Your task to perform on an android device: Open the calendar and show me this week's events? Image 0: 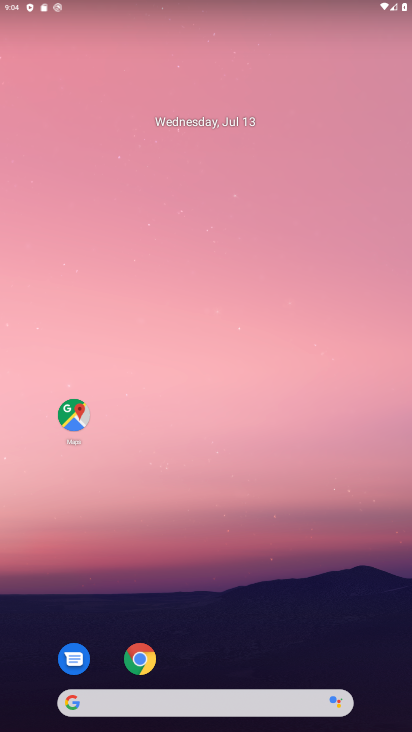
Step 0: drag from (393, 655) to (233, 0)
Your task to perform on an android device: Open the calendar and show me this week's events? Image 1: 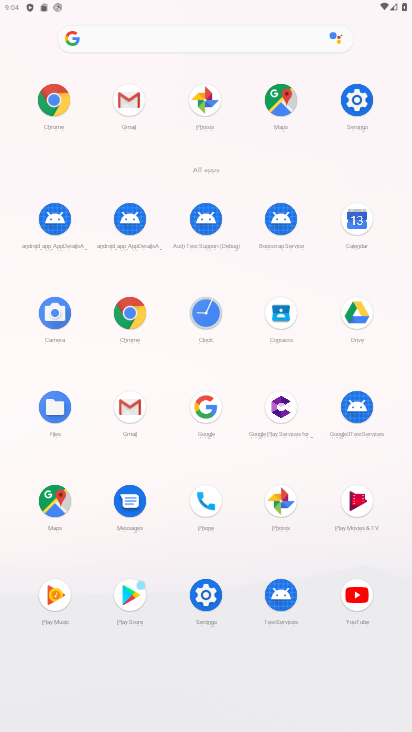
Step 1: click (354, 220)
Your task to perform on an android device: Open the calendar and show me this week's events? Image 2: 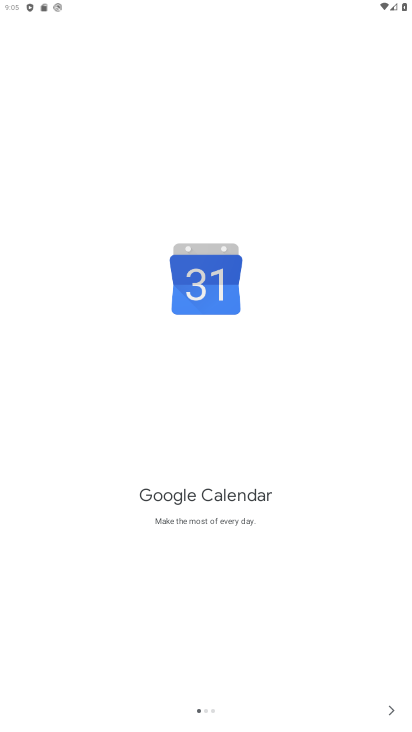
Step 2: click (390, 713)
Your task to perform on an android device: Open the calendar and show me this week's events? Image 3: 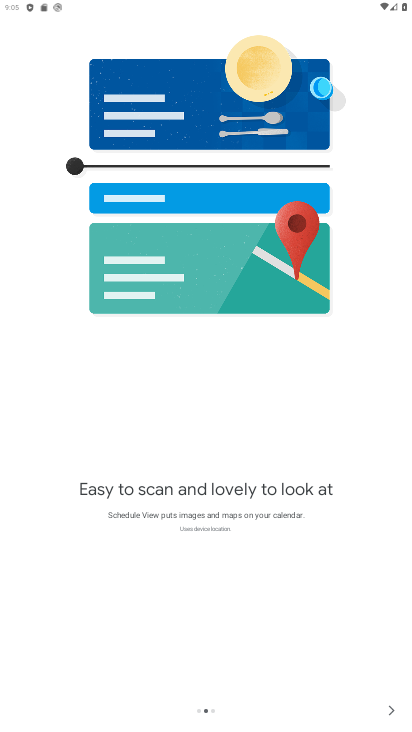
Step 3: click (390, 713)
Your task to perform on an android device: Open the calendar and show me this week's events? Image 4: 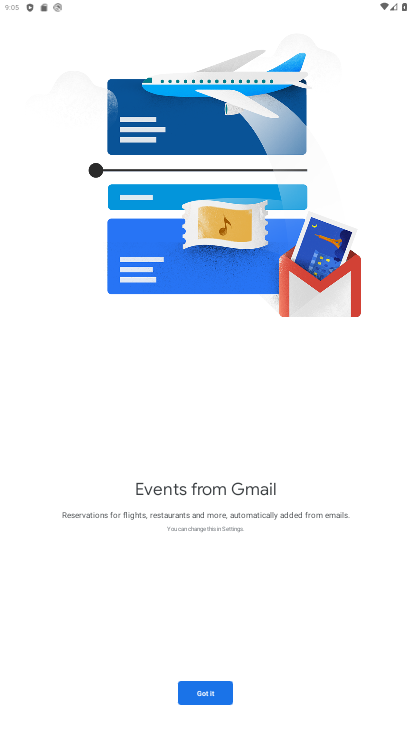
Step 4: click (197, 689)
Your task to perform on an android device: Open the calendar and show me this week's events? Image 5: 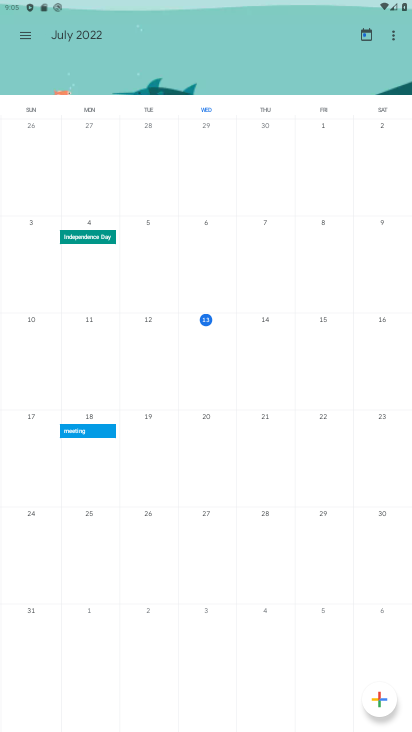
Step 5: click (22, 36)
Your task to perform on an android device: Open the calendar and show me this week's events? Image 6: 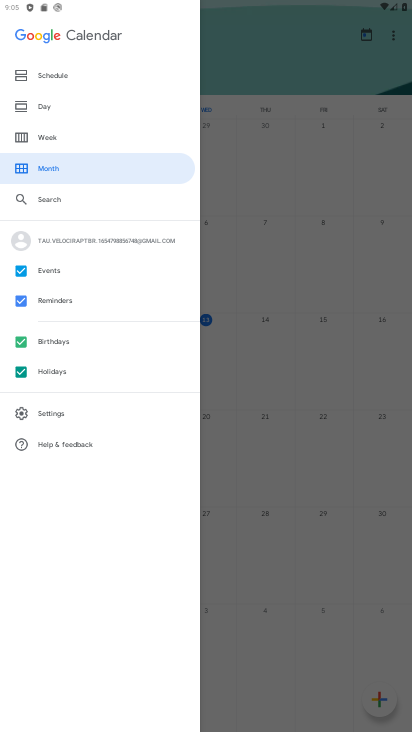
Step 6: click (70, 136)
Your task to perform on an android device: Open the calendar and show me this week's events? Image 7: 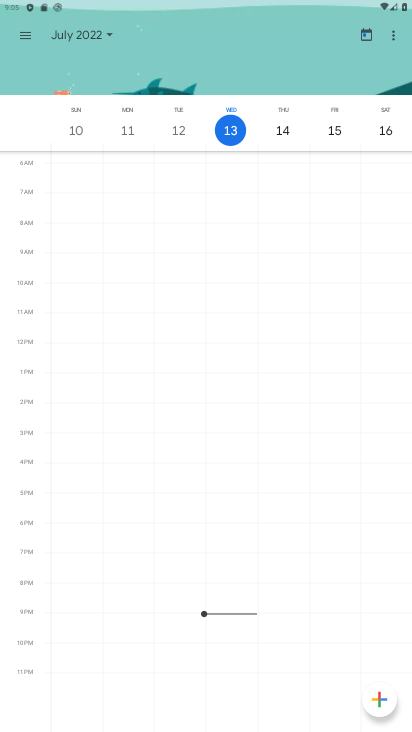
Step 7: task complete